Your task to perform on an android device: manage bookmarks in the chrome app Image 0: 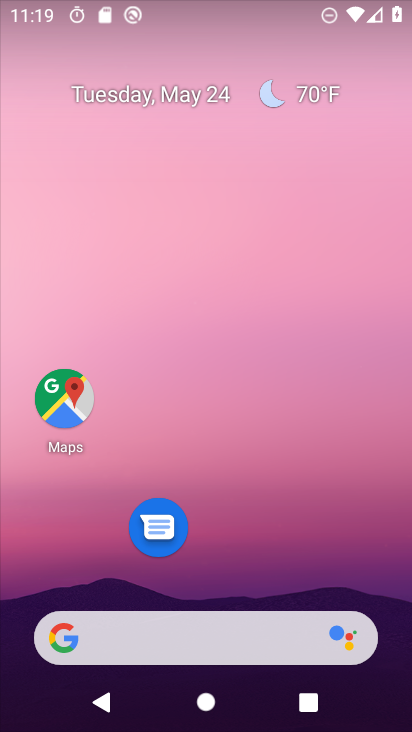
Step 0: drag from (250, 552) to (252, 74)
Your task to perform on an android device: manage bookmarks in the chrome app Image 1: 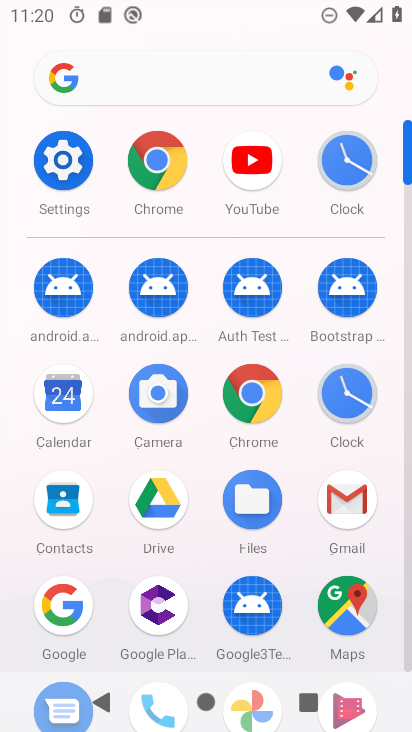
Step 1: click (156, 163)
Your task to perform on an android device: manage bookmarks in the chrome app Image 2: 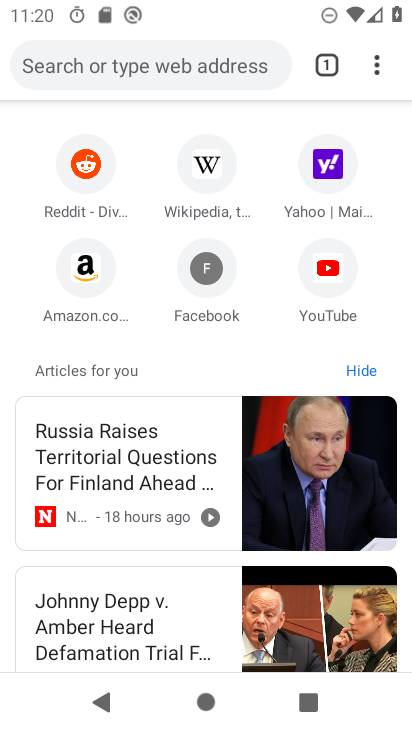
Step 2: click (372, 60)
Your task to perform on an android device: manage bookmarks in the chrome app Image 3: 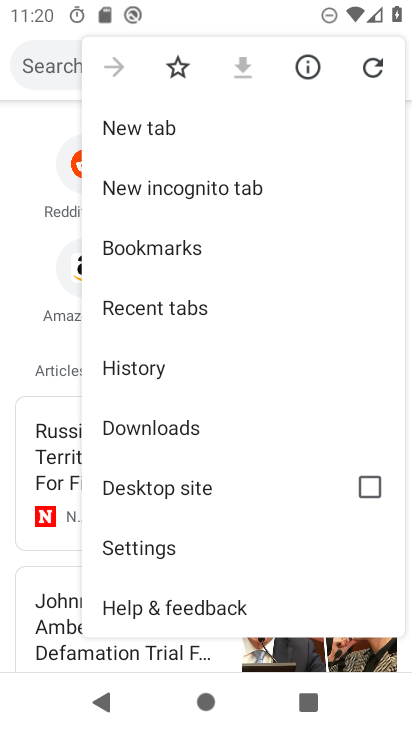
Step 3: click (188, 244)
Your task to perform on an android device: manage bookmarks in the chrome app Image 4: 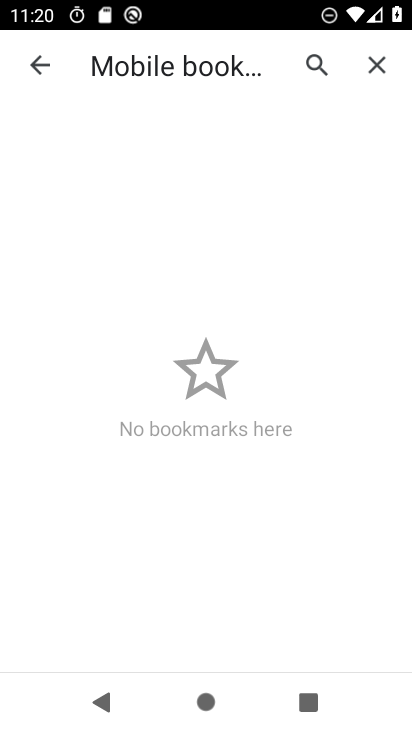
Step 4: task complete